Your task to perform on an android device: check storage Image 0: 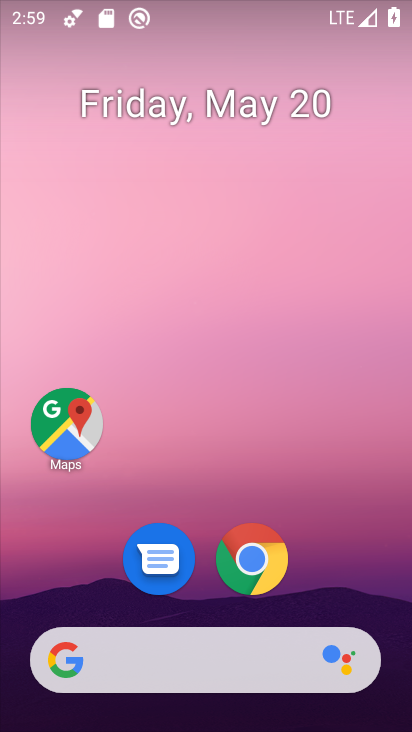
Step 0: drag from (346, 560) to (254, 110)
Your task to perform on an android device: check storage Image 1: 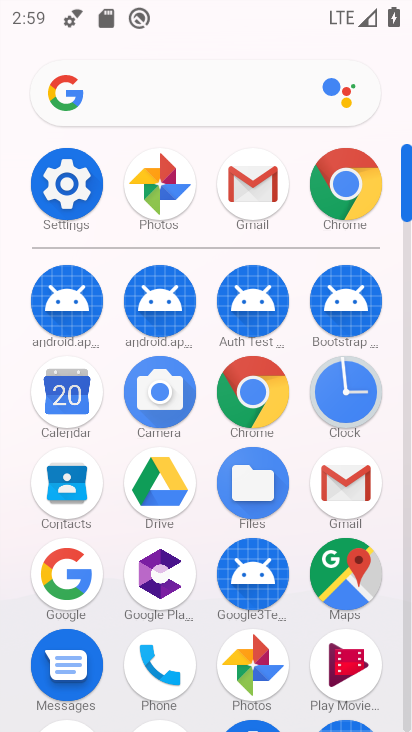
Step 1: click (61, 186)
Your task to perform on an android device: check storage Image 2: 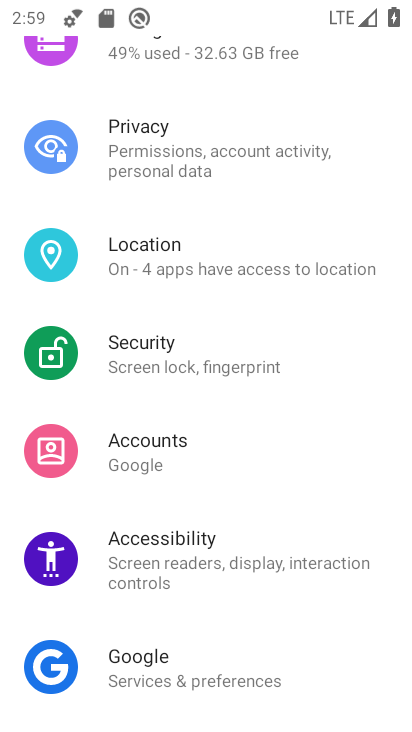
Step 2: drag from (228, 229) to (265, 640)
Your task to perform on an android device: check storage Image 3: 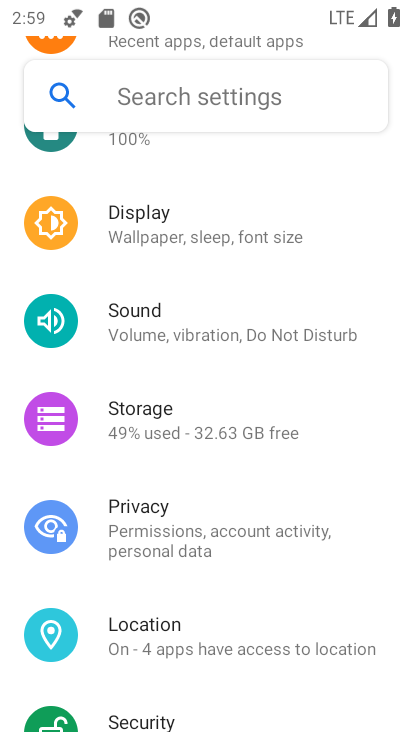
Step 3: click (208, 427)
Your task to perform on an android device: check storage Image 4: 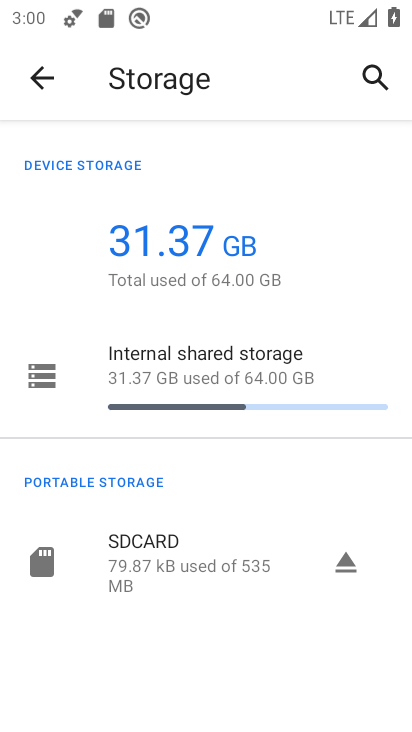
Step 4: task complete